Your task to perform on an android device: open app "YouTube Kids" (install if not already installed) and enter user name: "atmospheric@gmail.com" and password: "raze" Image 0: 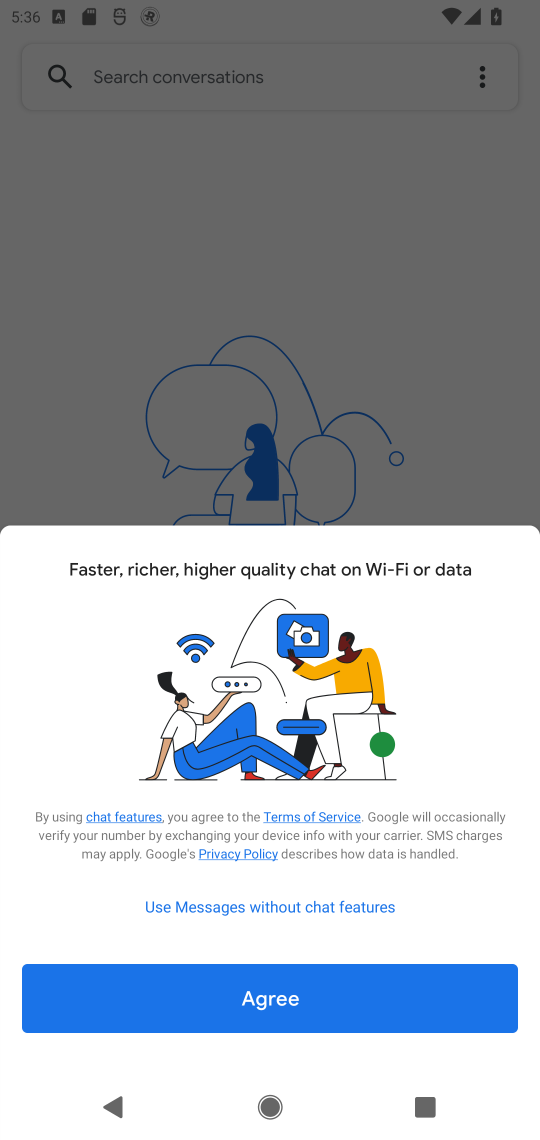
Step 0: press back button
Your task to perform on an android device: open app "YouTube Kids" (install if not already installed) and enter user name: "atmospheric@gmail.com" and password: "raze" Image 1: 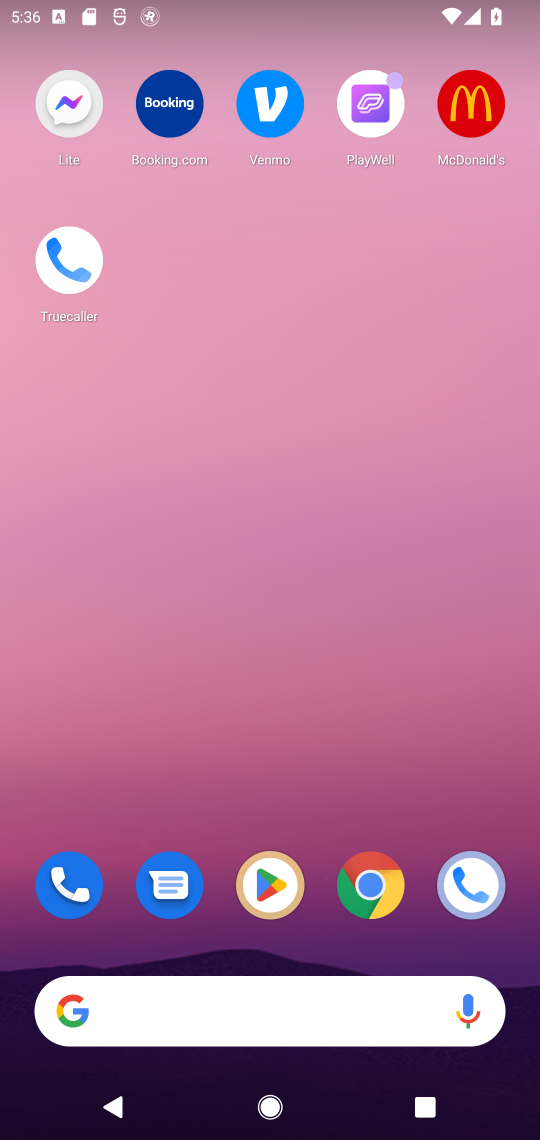
Step 1: click (280, 905)
Your task to perform on an android device: open app "YouTube Kids" (install if not already installed) and enter user name: "atmospheric@gmail.com" and password: "raze" Image 2: 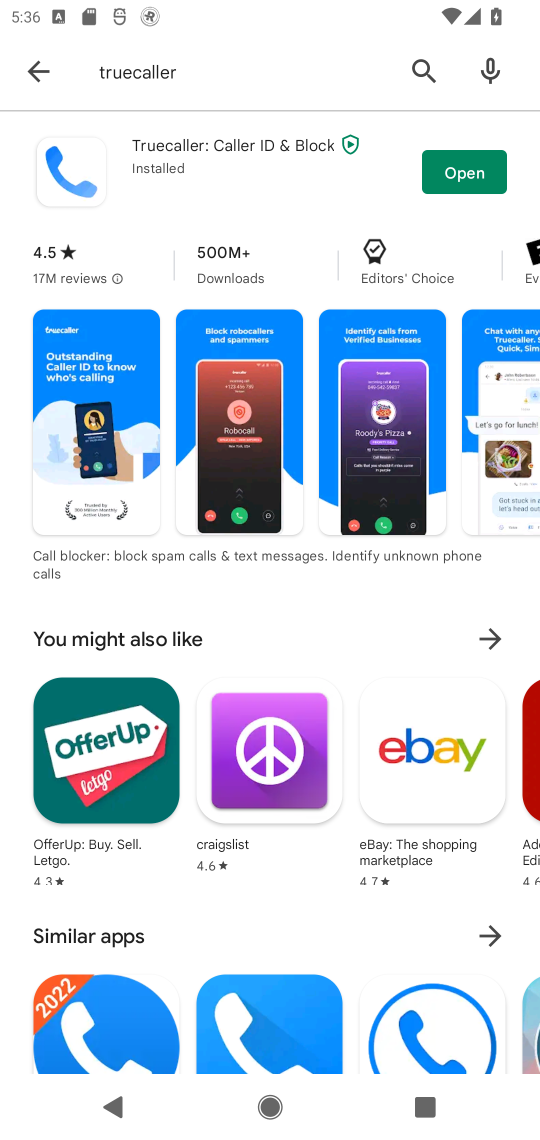
Step 2: click (411, 58)
Your task to perform on an android device: open app "YouTube Kids" (install if not already installed) and enter user name: "atmospheric@gmail.com" and password: "raze" Image 3: 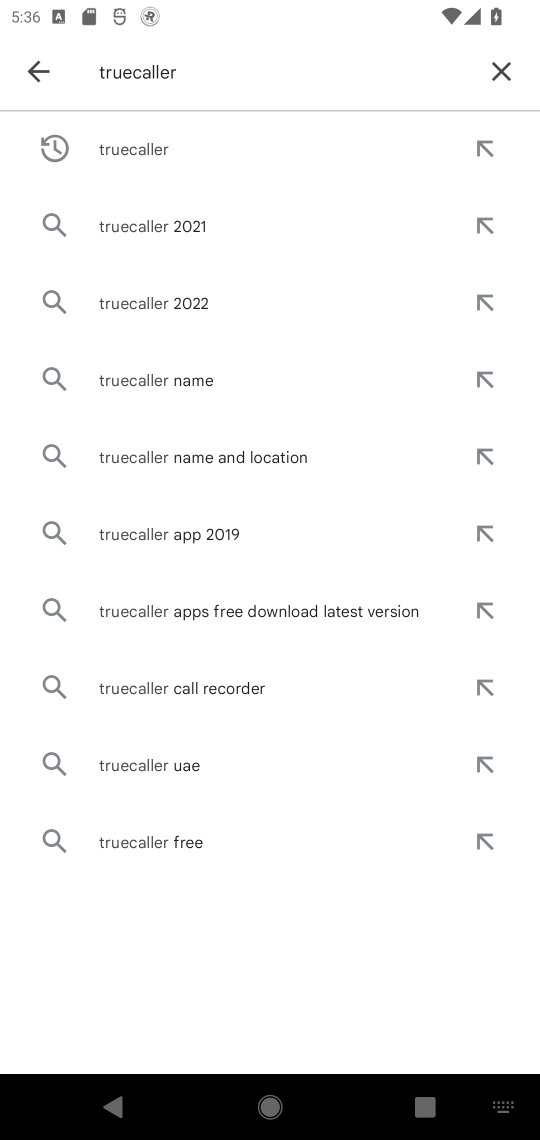
Step 3: click (510, 65)
Your task to perform on an android device: open app "YouTube Kids" (install if not already installed) and enter user name: "atmospheric@gmail.com" and password: "raze" Image 4: 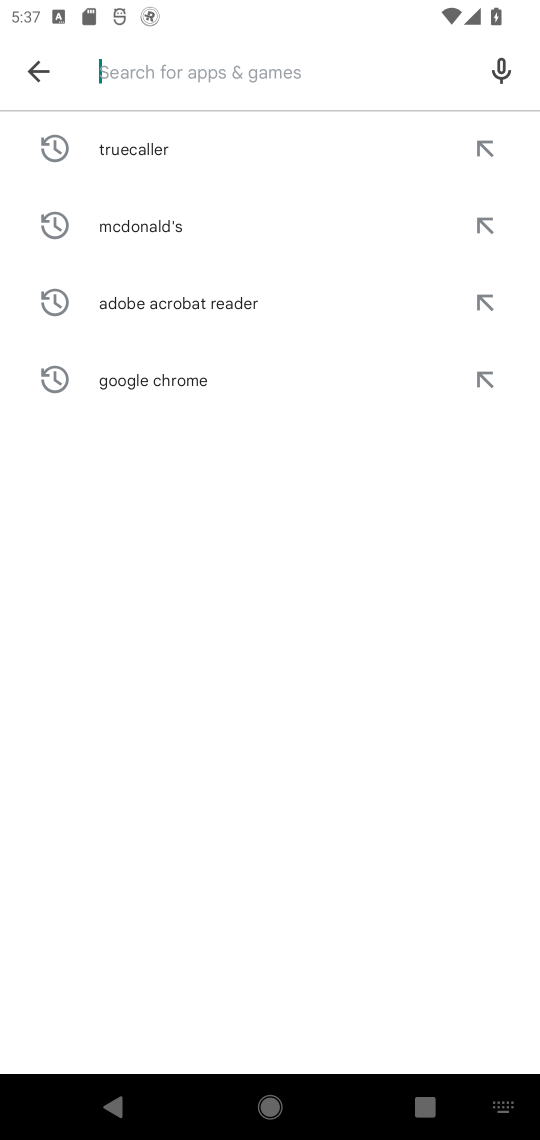
Step 4: click (229, 69)
Your task to perform on an android device: open app "YouTube Kids" (install if not already installed) and enter user name: "atmospheric@gmail.com" and password: "raze" Image 5: 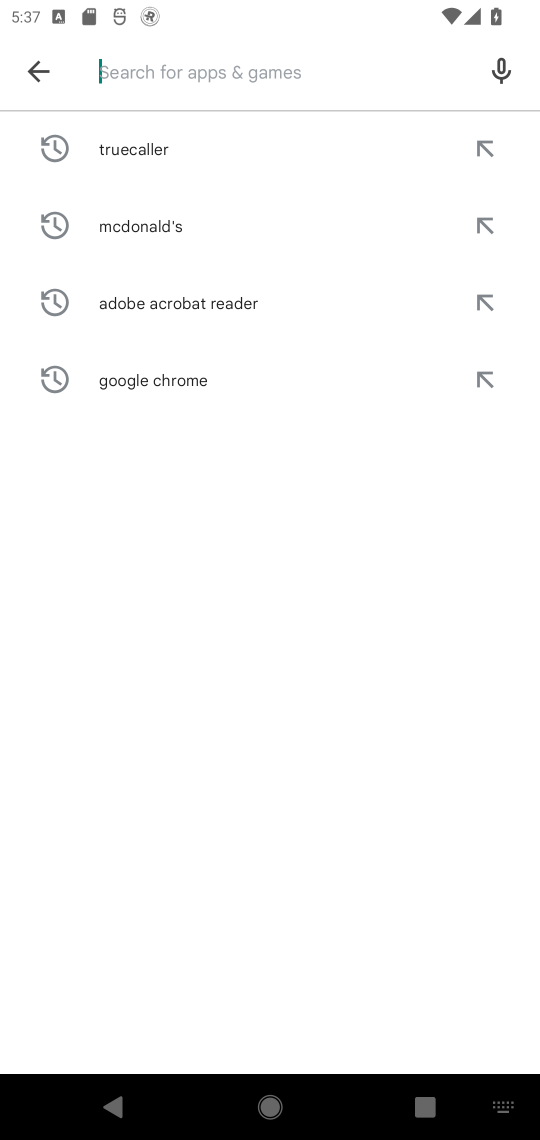
Step 5: type "YouTube Kids"
Your task to perform on an android device: open app "YouTube Kids" (install if not already installed) and enter user name: "atmospheric@gmail.com" and password: "raze" Image 6: 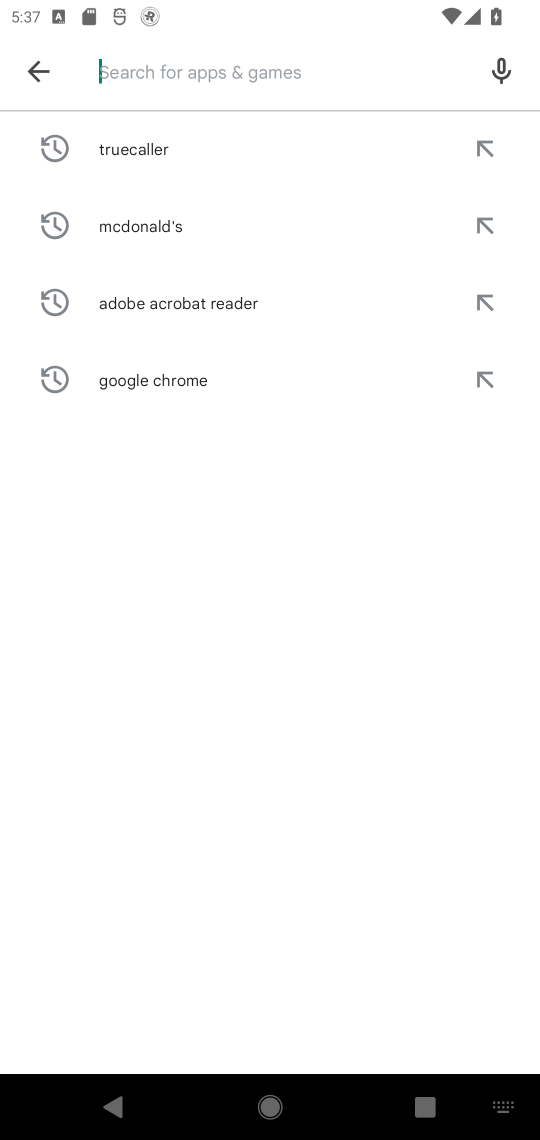
Step 6: click (160, 577)
Your task to perform on an android device: open app "YouTube Kids" (install if not already installed) and enter user name: "atmospheric@gmail.com" and password: "raze" Image 7: 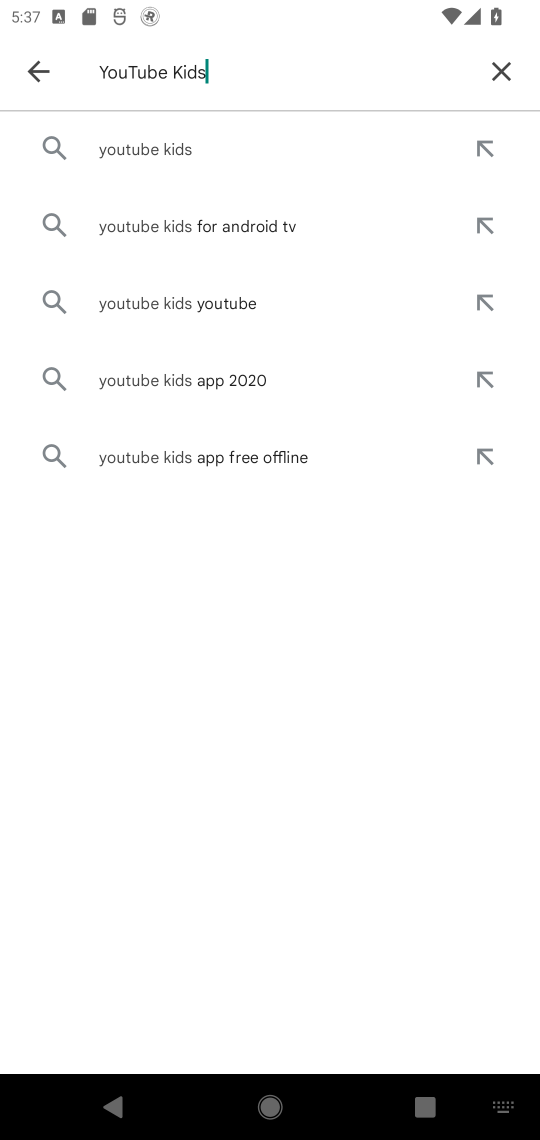
Step 7: click (180, 146)
Your task to perform on an android device: open app "YouTube Kids" (install if not already installed) and enter user name: "atmospheric@gmail.com" and password: "raze" Image 8: 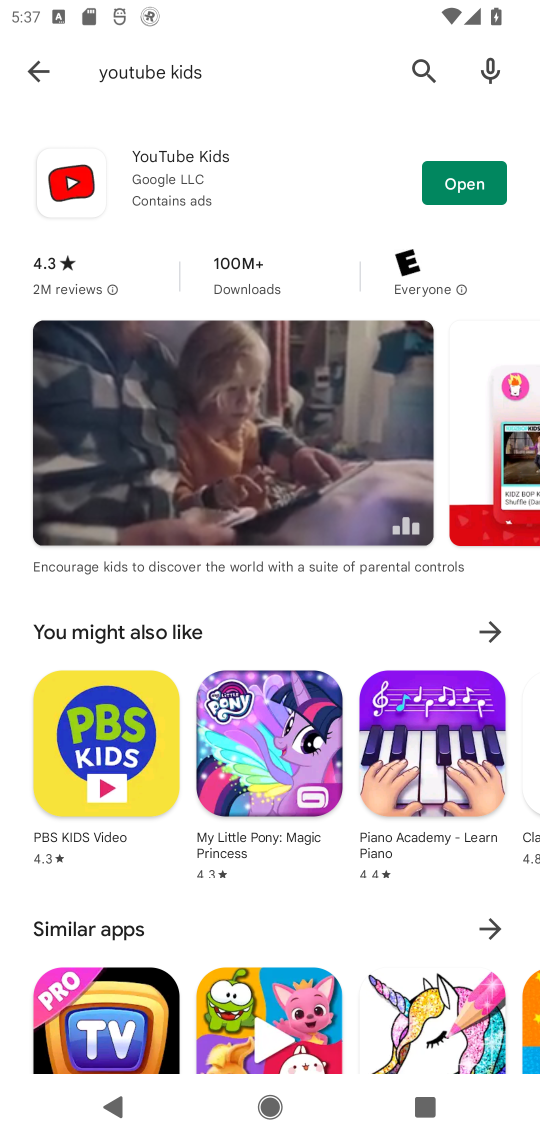
Step 8: click (453, 192)
Your task to perform on an android device: open app "YouTube Kids" (install if not already installed) and enter user name: "atmospheric@gmail.com" and password: "raze" Image 9: 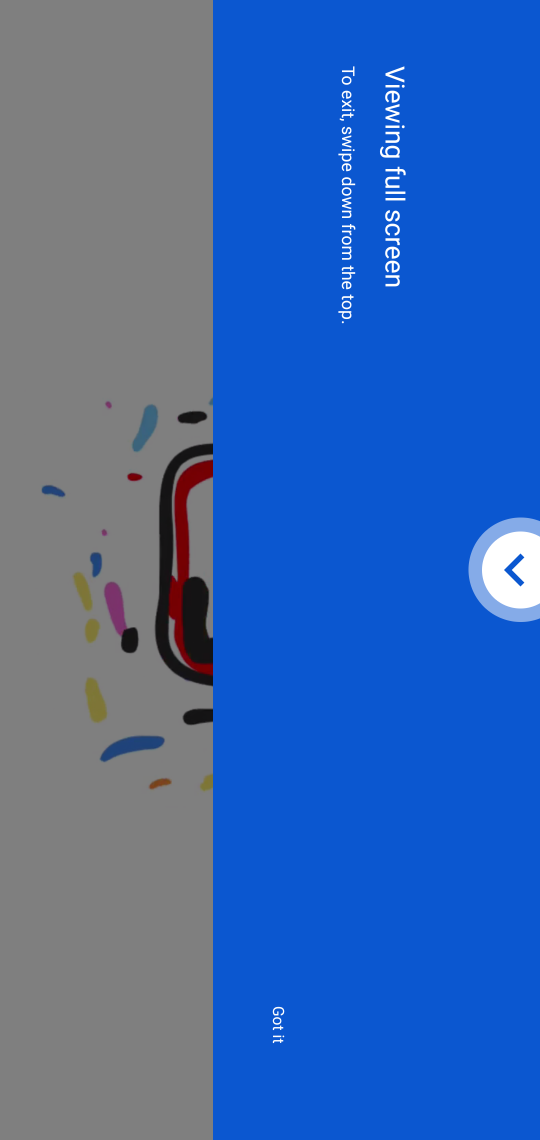
Step 9: click (267, 1025)
Your task to perform on an android device: open app "YouTube Kids" (install if not already installed) and enter user name: "atmospheric@gmail.com" and password: "raze" Image 10: 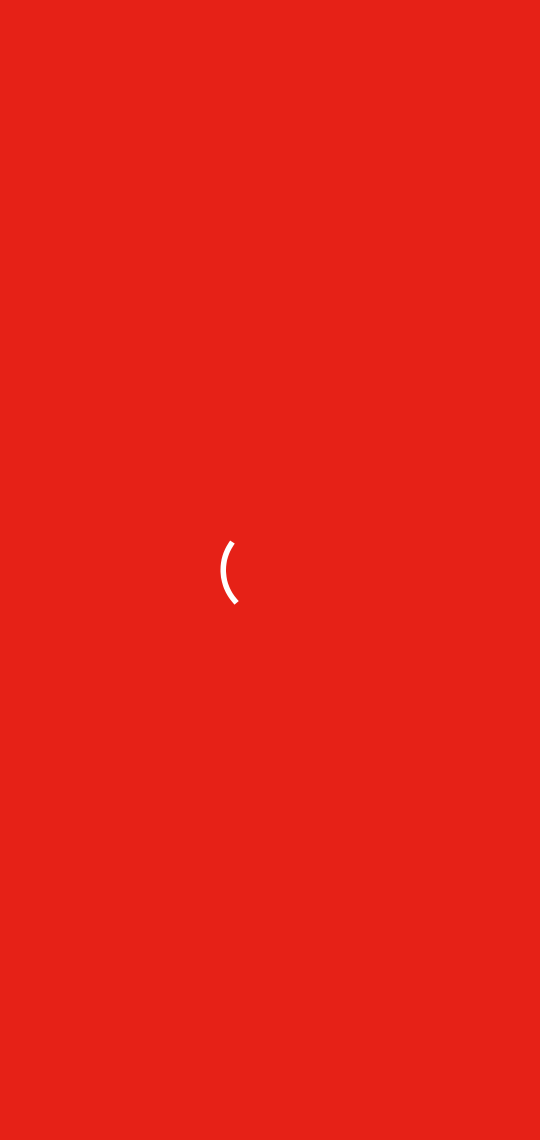
Step 10: task complete